Your task to perform on an android device: Open Wikipedia Image 0: 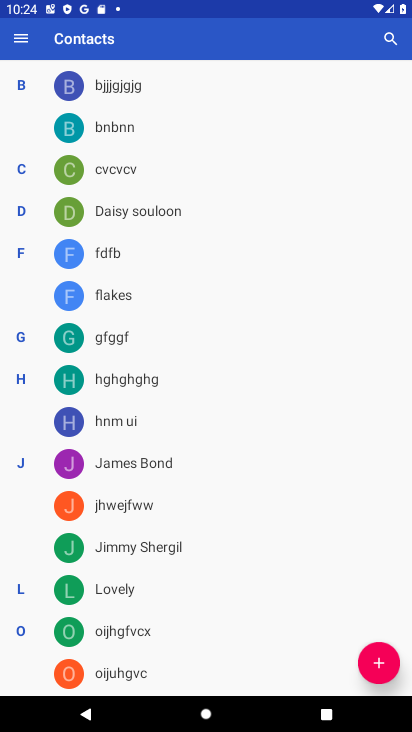
Step 0: press home button
Your task to perform on an android device: Open Wikipedia Image 1: 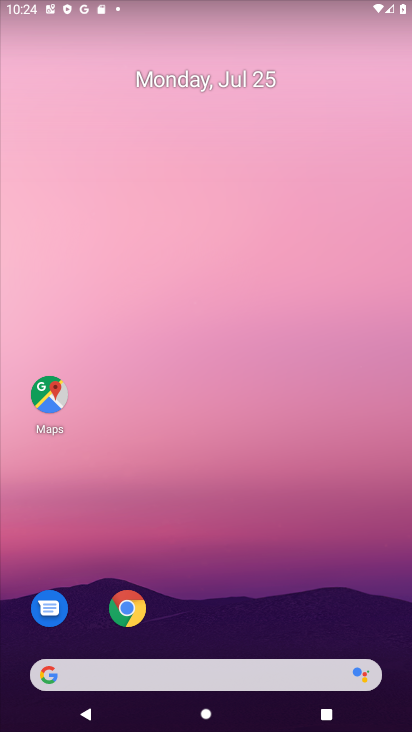
Step 1: click (140, 613)
Your task to perform on an android device: Open Wikipedia Image 2: 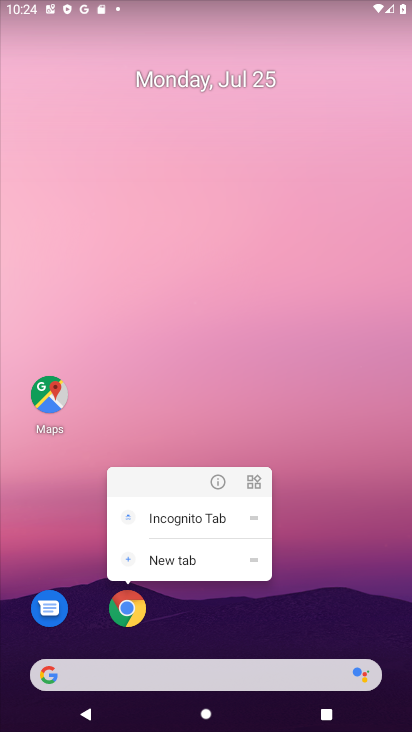
Step 2: click (140, 613)
Your task to perform on an android device: Open Wikipedia Image 3: 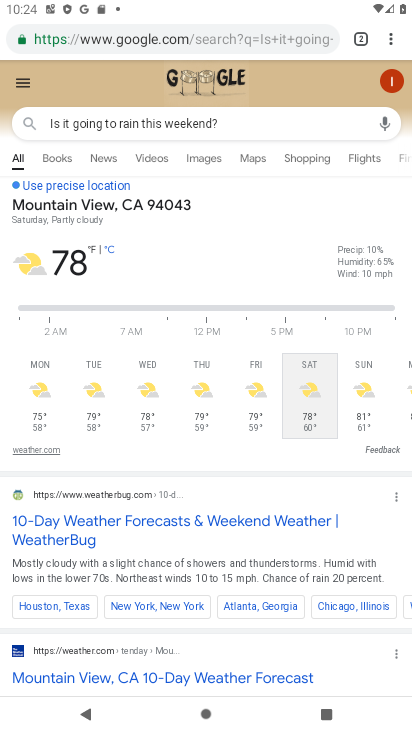
Step 3: click (395, 34)
Your task to perform on an android device: Open Wikipedia Image 4: 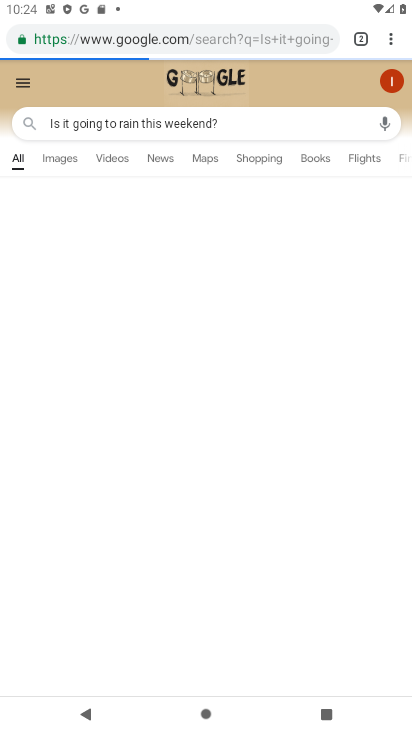
Step 4: click (395, 34)
Your task to perform on an android device: Open Wikipedia Image 5: 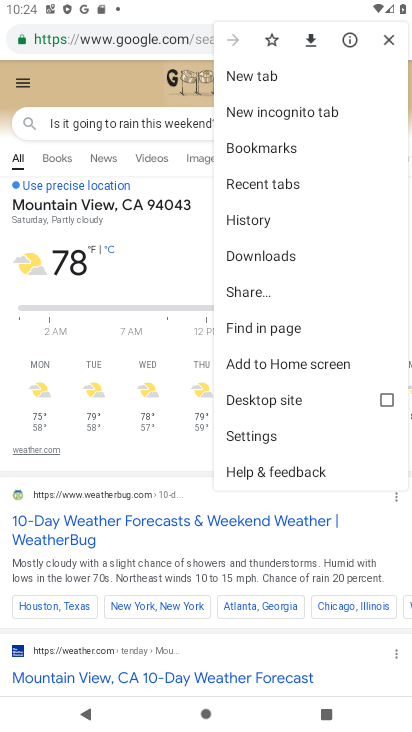
Step 5: click (272, 435)
Your task to perform on an android device: Open Wikipedia Image 6: 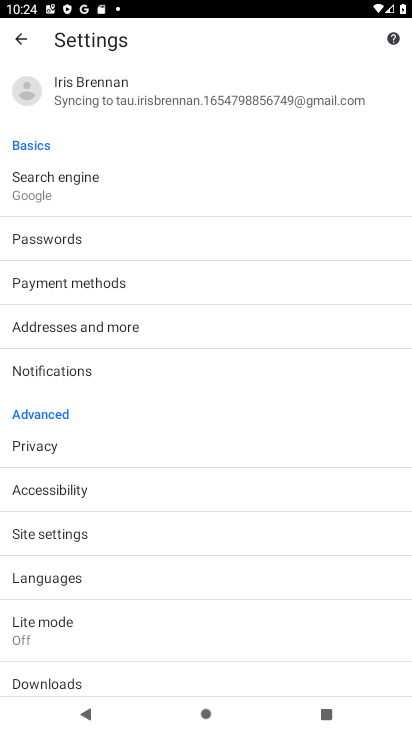
Step 6: click (26, 33)
Your task to perform on an android device: Open Wikipedia Image 7: 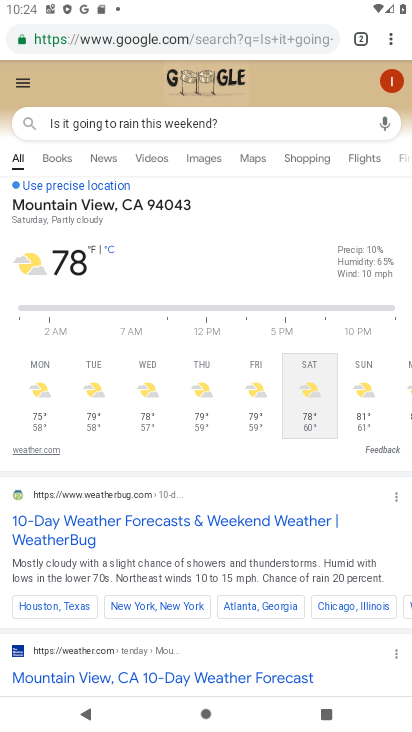
Step 7: click (396, 30)
Your task to perform on an android device: Open Wikipedia Image 8: 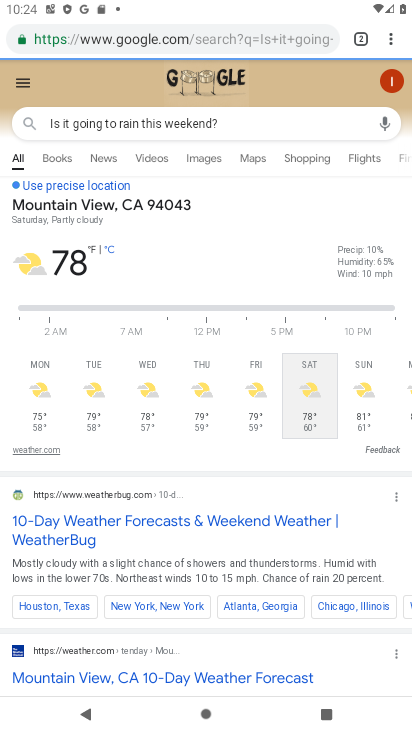
Step 8: click (395, 42)
Your task to perform on an android device: Open Wikipedia Image 9: 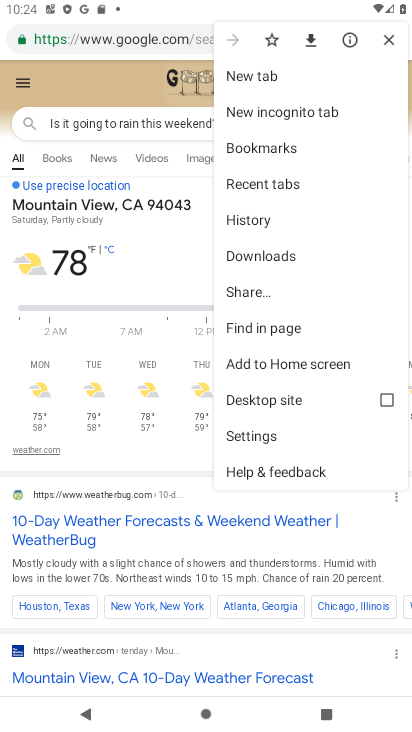
Step 9: click (276, 62)
Your task to perform on an android device: Open Wikipedia Image 10: 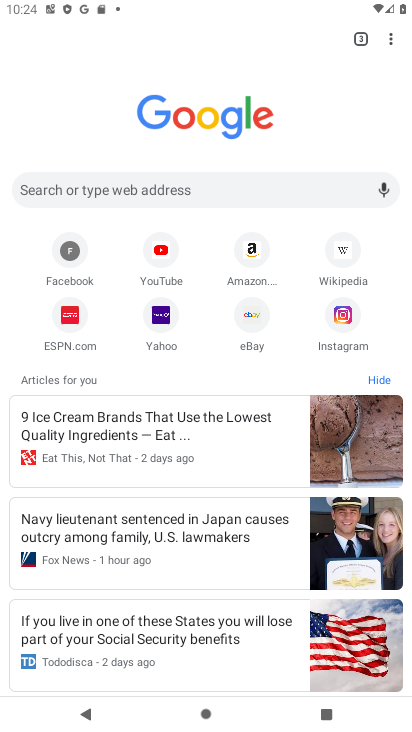
Step 10: click (336, 254)
Your task to perform on an android device: Open Wikipedia Image 11: 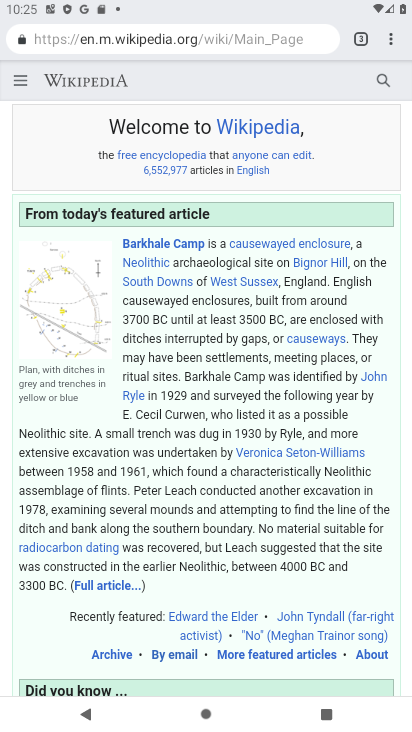
Step 11: task complete